Your task to perform on an android device: turn off priority inbox in the gmail app Image 0: 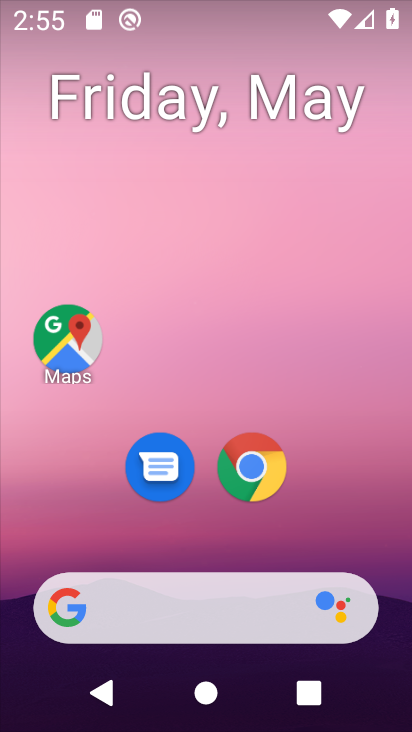
Step 0: drag from (222, 512) to (222, 57)
Your task to perform on an android device: turn off priority inbox in the gmail app Image 1: 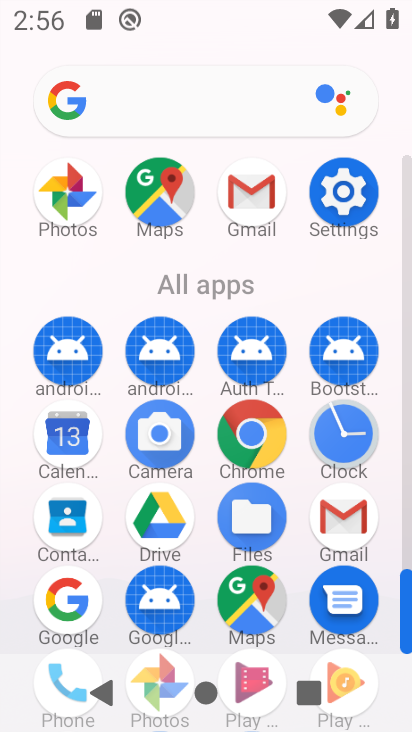
Step 1: click (261, 194)
Your task to perform on an android device: turn off priority inbox in the gmail app Image 2: 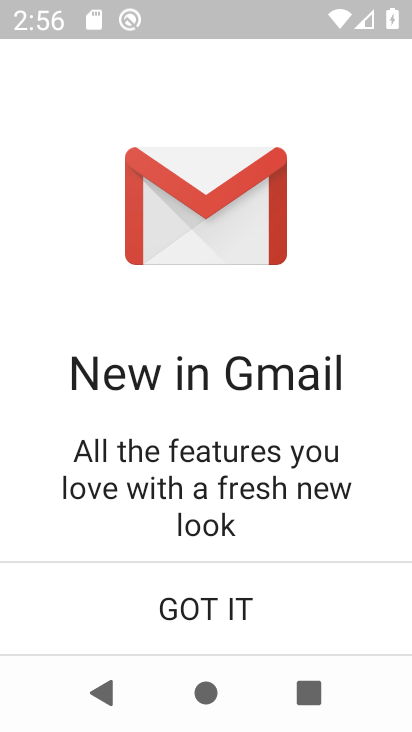
Step 2: click (221, 602)
Your task to perform on an android device: turn off priority inbox in the gmail app Image 3: 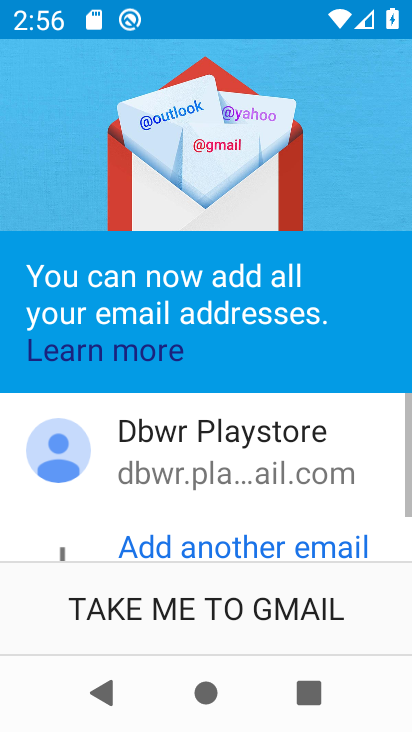
Step 3: click (217, 608)
Your task to perform on an android device: turn off priority inbox in the gmail app Image 4: 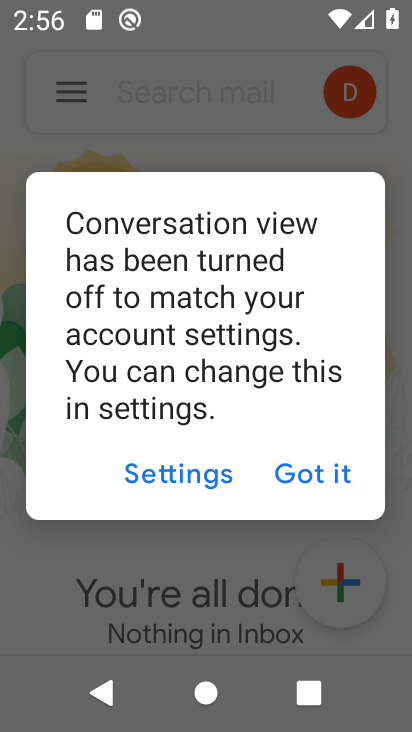
Step 4: press home button
Your task to perform on an android device: turn off priority inbox in the gmail app Image 5: 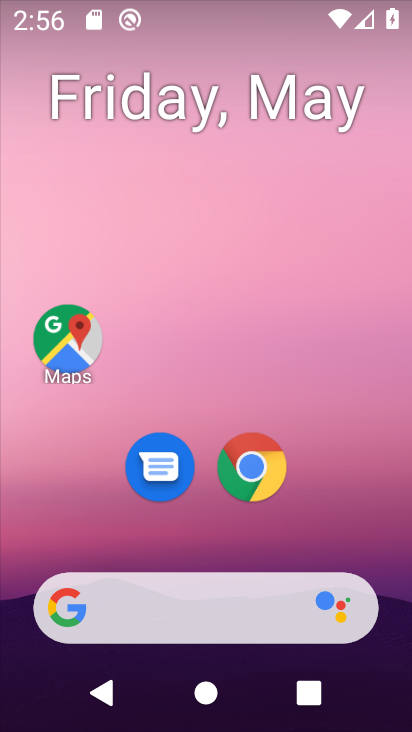
Step 5: drag from (306, 344) to (257, 57)
Your task to perform on an android device: turn off priority inbox in the gmail app Image 6: 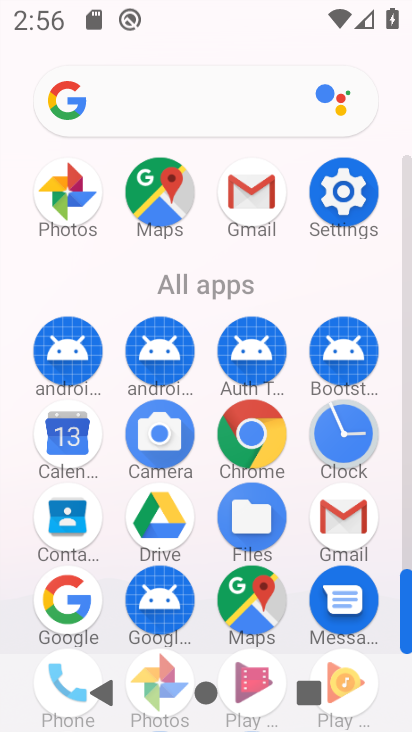
Step 6: click (242, 187)
Your task to perform on an android device: turn off priority inbox in the gmail app Image 7: 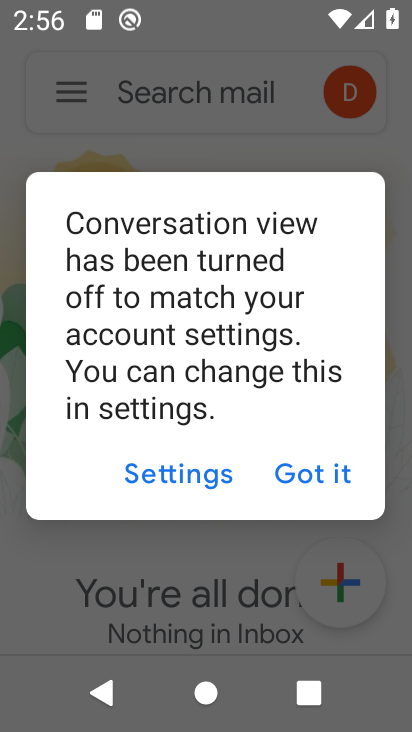
Step 7: click (314, 478)
Your task to perform on an android device: turn off priority inbox in the gmail app Image 8: 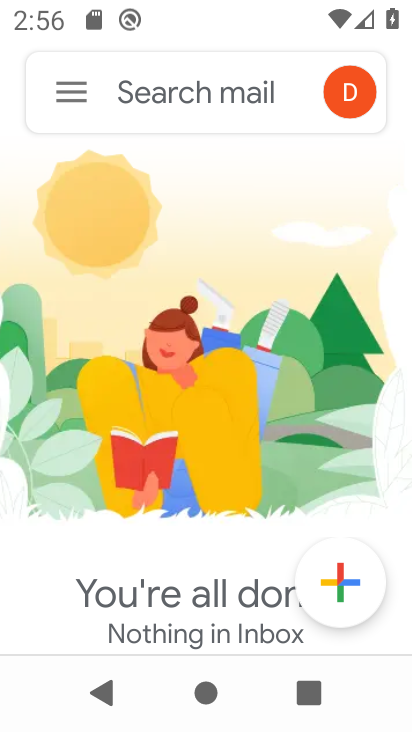
Step 8: click (80, 99)
Your task to perform on an android device: turn off priority inbox in the gmail app Image 9: 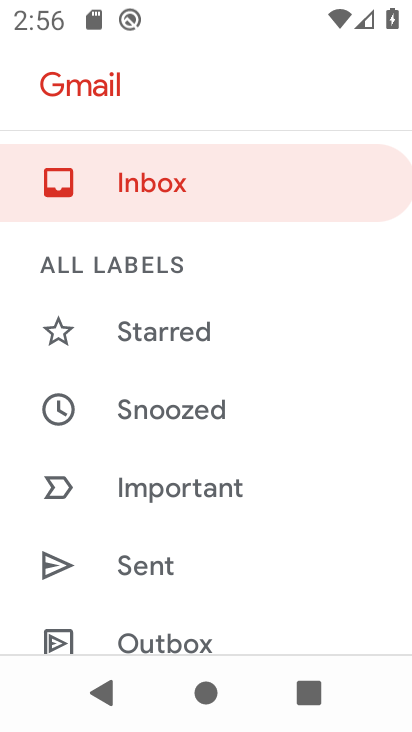
Step 9: drag from (232, 594) to (238, 107)
Your task to perform on an android device: turn off priority inbox in the gmail app Image 10: 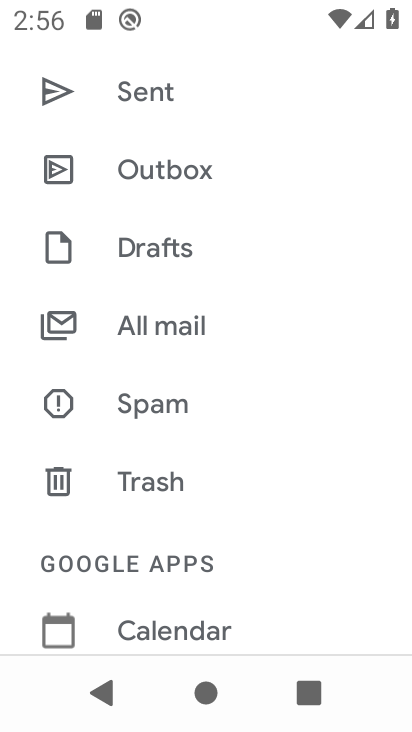
Step 10: drag from (233, 575) to (225, 156)
Your task to perform on an android device: turn off priority inbox in the gmail app Image 11: 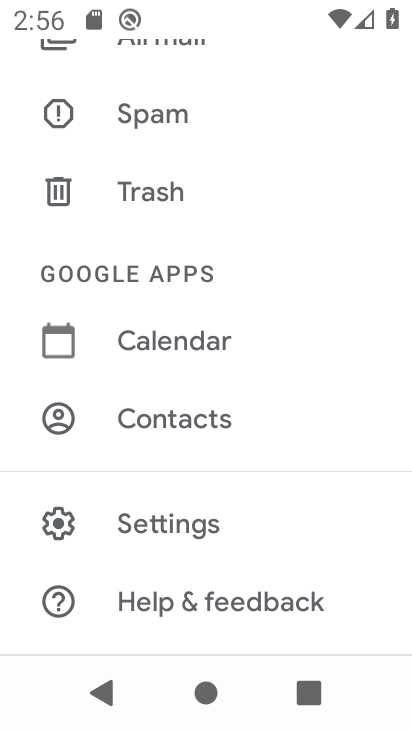
Step 11: click (187, 522)
Your task to perform on an android device: turn off priority inbox in the gmail app Image 12: 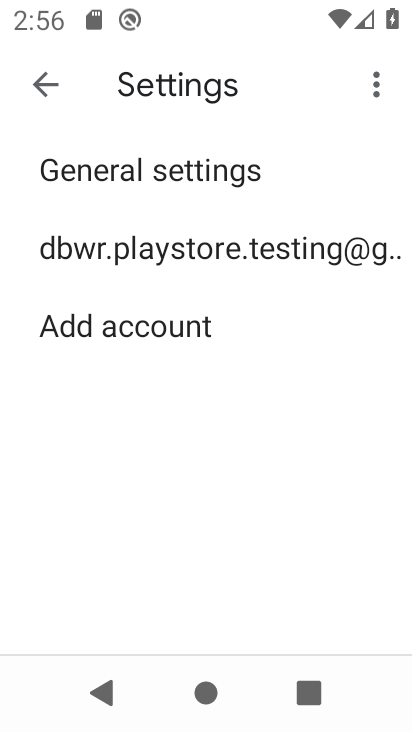
Step 12: click (209, 250)
Your task to perform on an android device: turn off priority inbox in the gmail app Image 13: 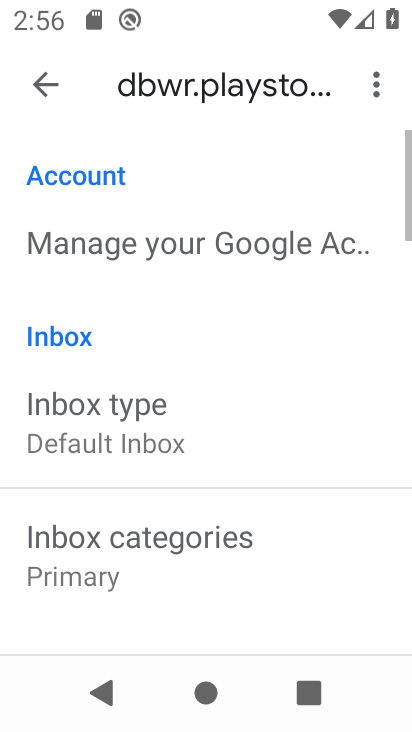
Step 13: click (100, 420)
Your task to perform on an android device: turn off priority inbox in the gmail app Image 14: 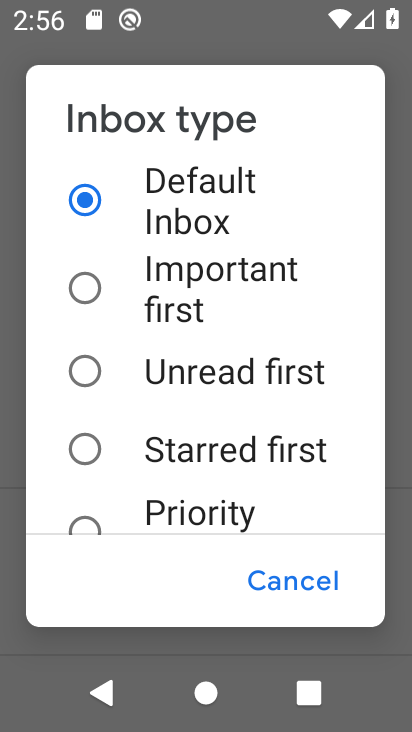
Step 14: task complete